Your task to perform on an android device: set default search engine in the chrome app Image 0: 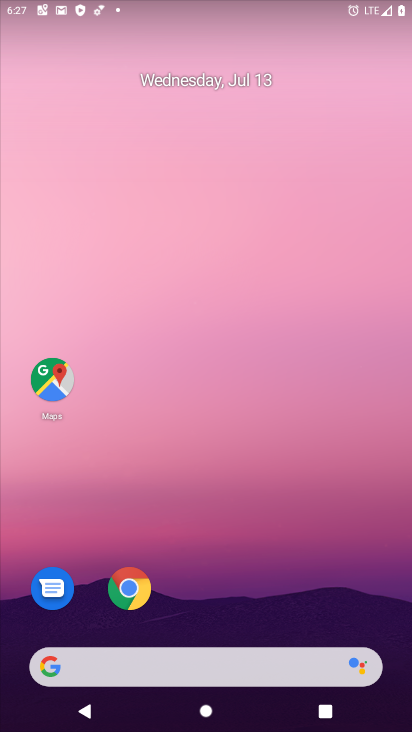
Step 0: click (119, 579)
Your task to perform on an android device: set default search engine in the chrome app Image 1: 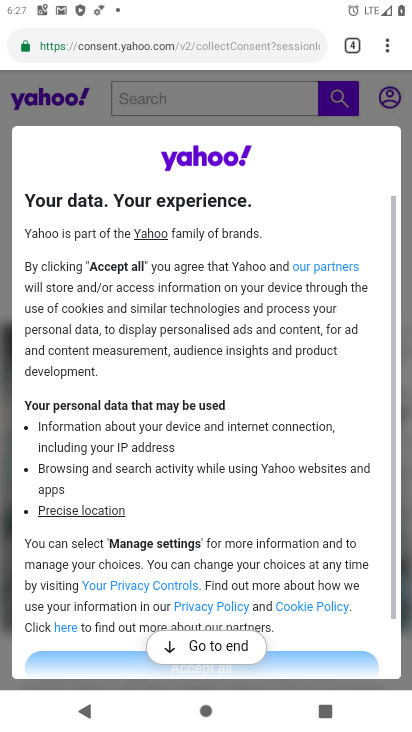
Step 1: click (390, 49)
Your task to perform on an android device: set default search engine in the chrome app Image 2: 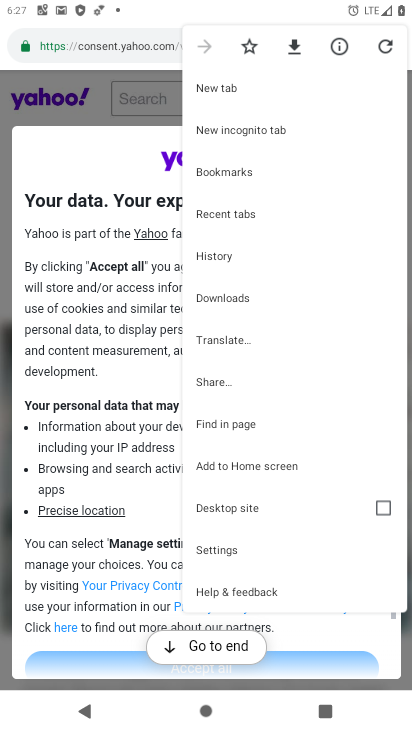
Step 2: click (228, 551)
Your task to perform on an android device: set default search engine in the chrome app Image 3: 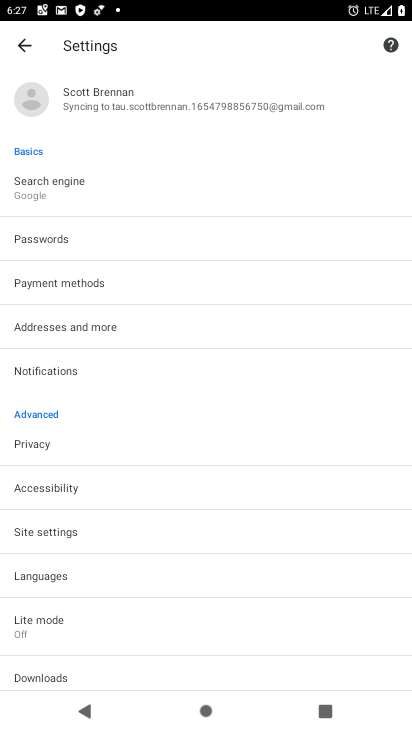
Step 3: click (44, 192)
Your task to perform on an android device: set default search engine in the chrome app Image 4: 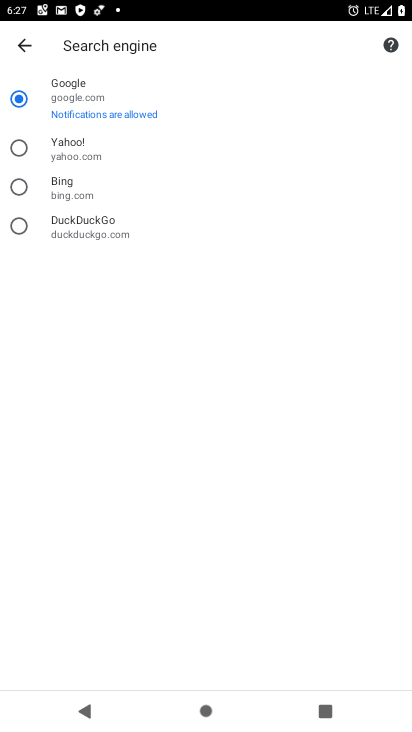
Step 4: click (16, 152)
Your task to perform on an android device: set default search engine in the chrome app Image 5: 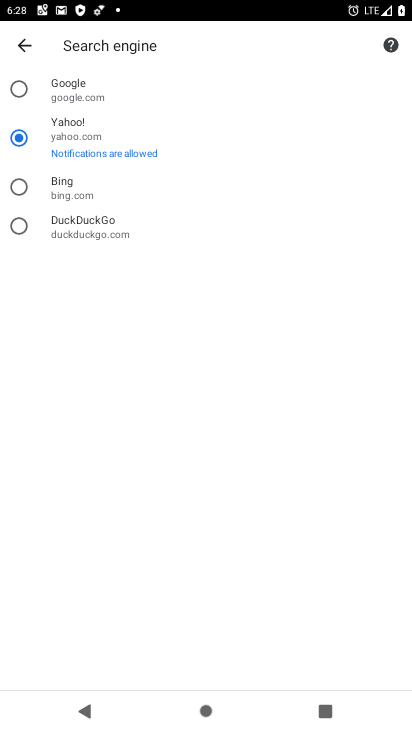
Step 5: task complete